Your task to perform on an android device: Open Google Maps Image 0: 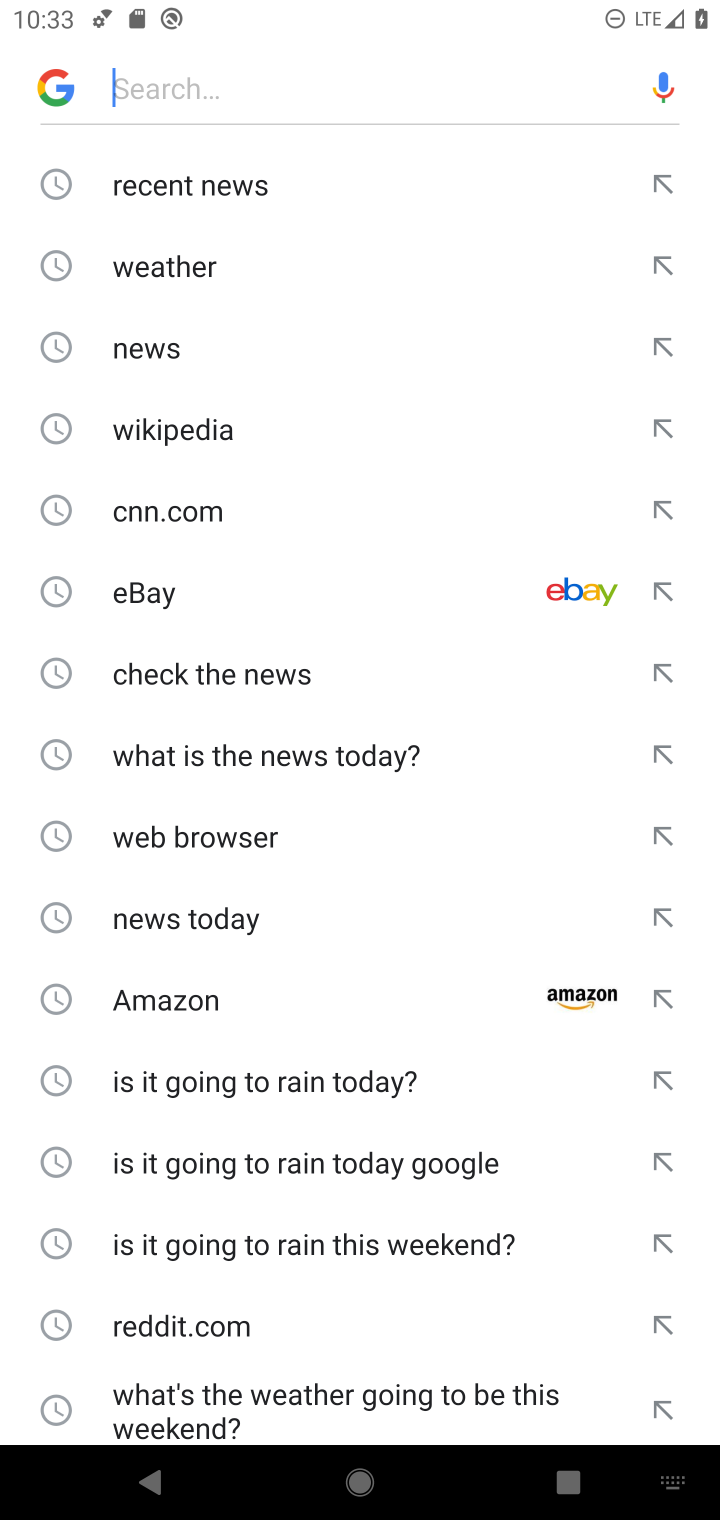
Step 0: press home button
Your task to perform on an android device: Open Google Maps Image 1: 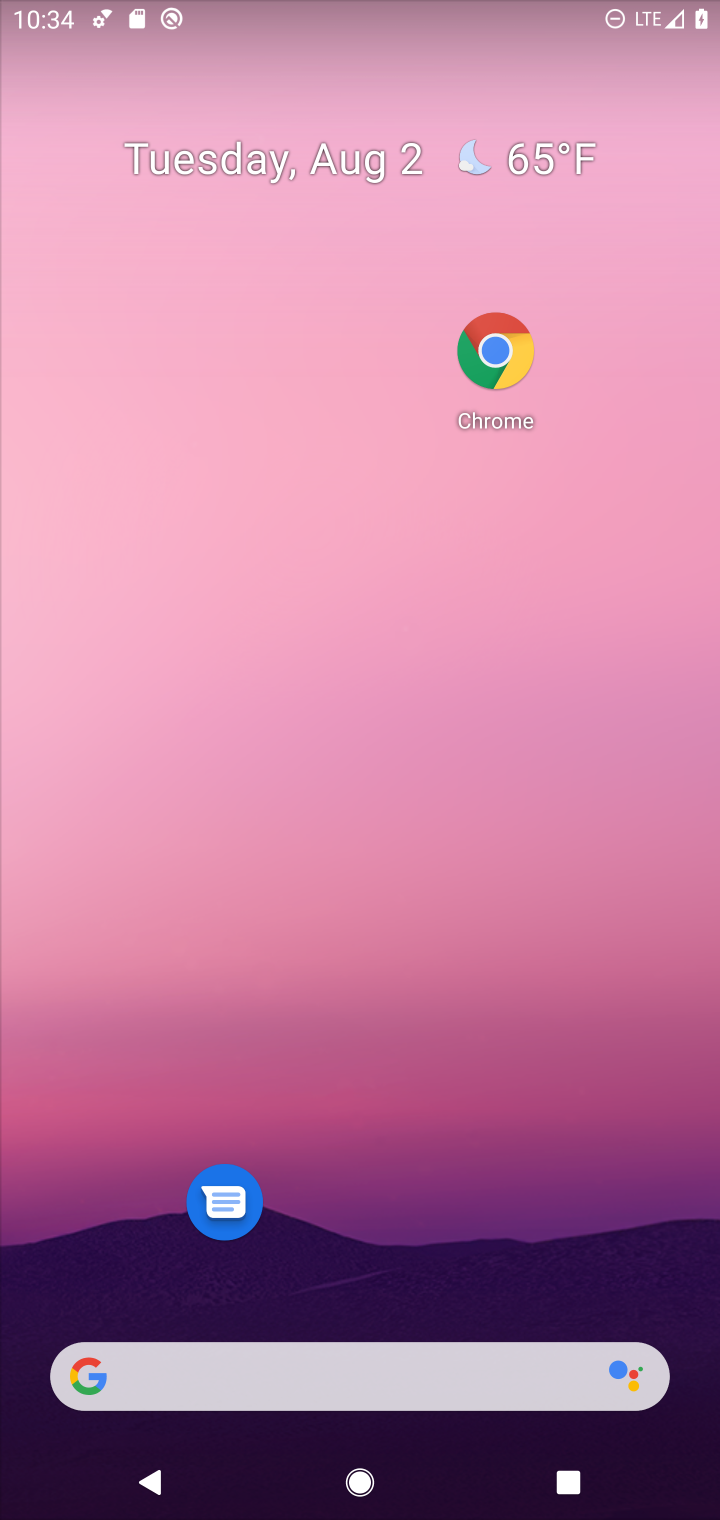
Step 1: drag from (374, 870) to (339, 102)
Your task to perform on an android device: Open Google Maps Image 2: 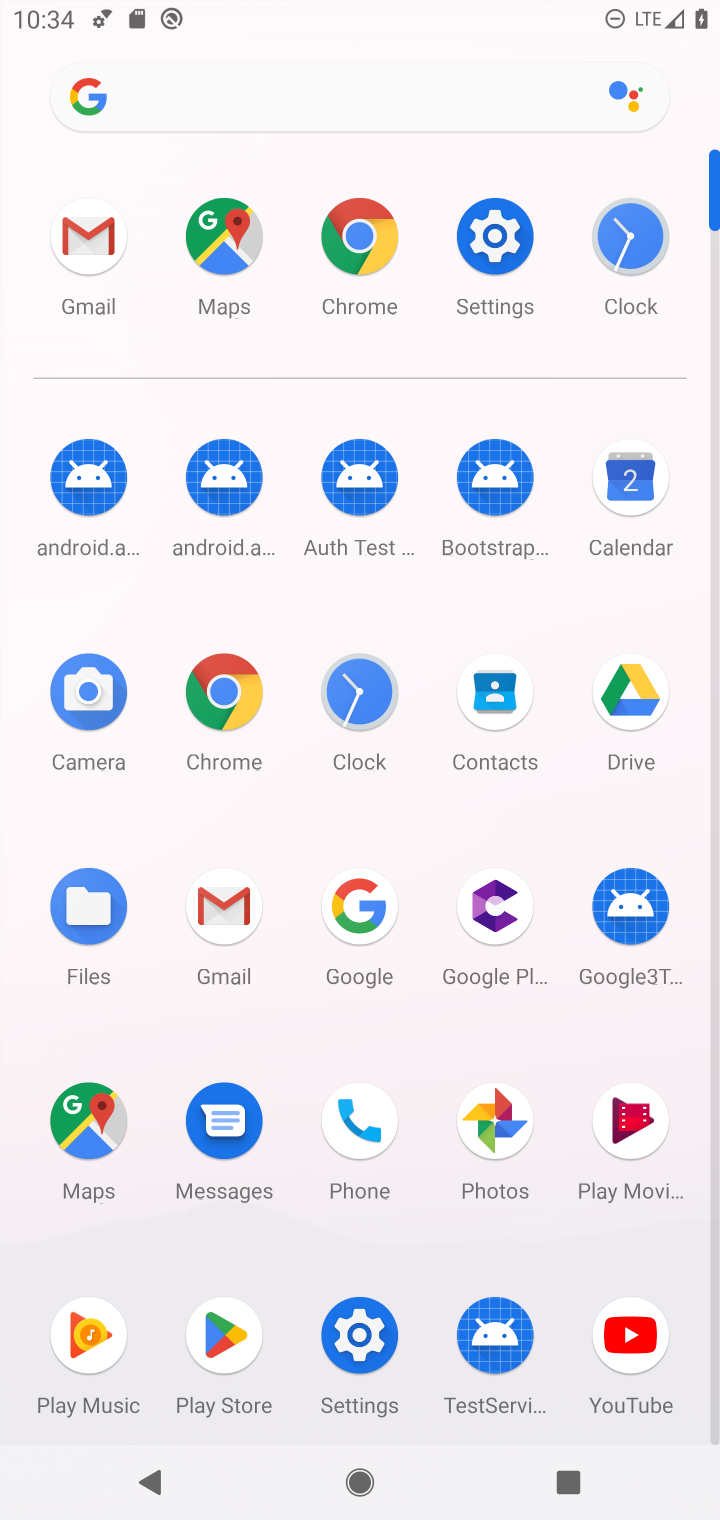
Step 2: click (76, 1136)
Your task to perform on an android device: Open Google Maps Image 3: 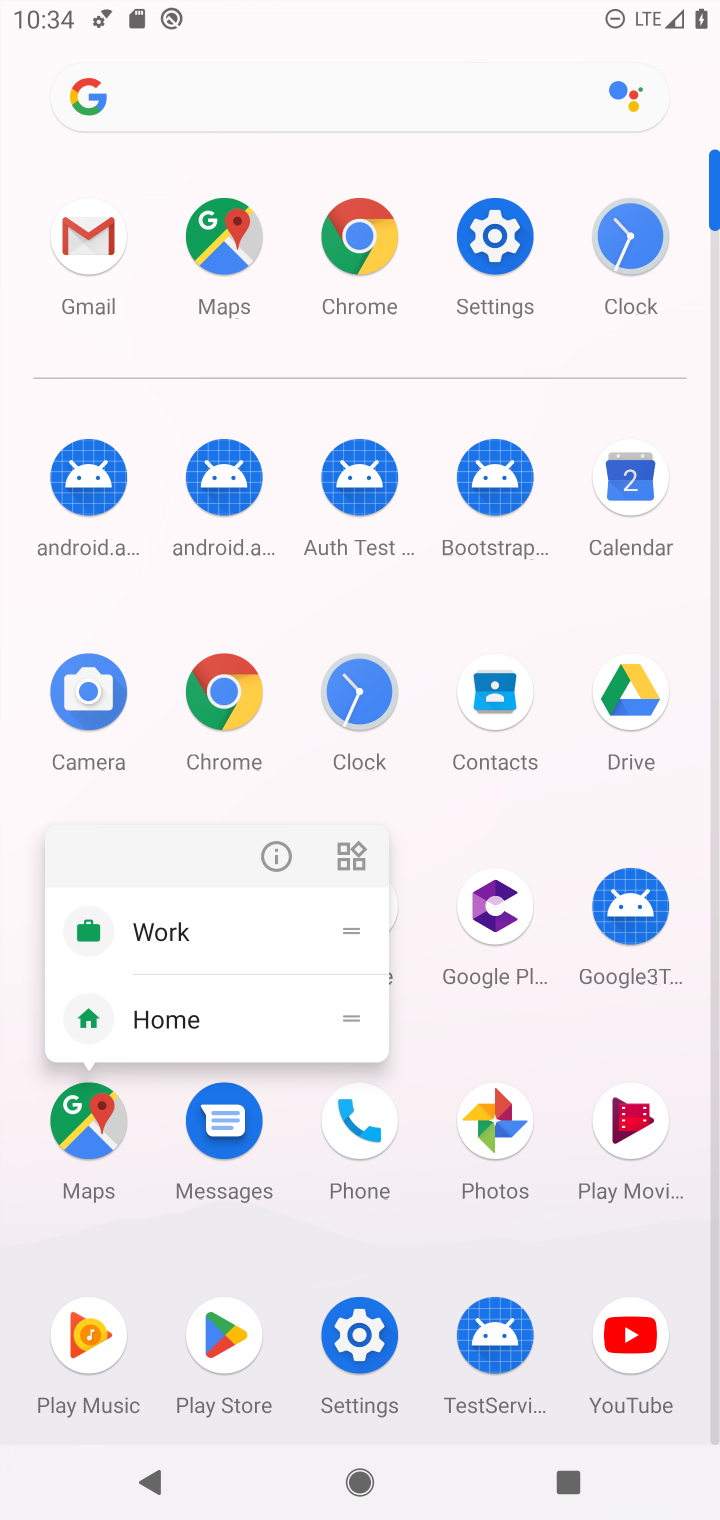
Step 3: click (89, 1122)
Your task to perform on an android device: Open Google Maps Image 4: 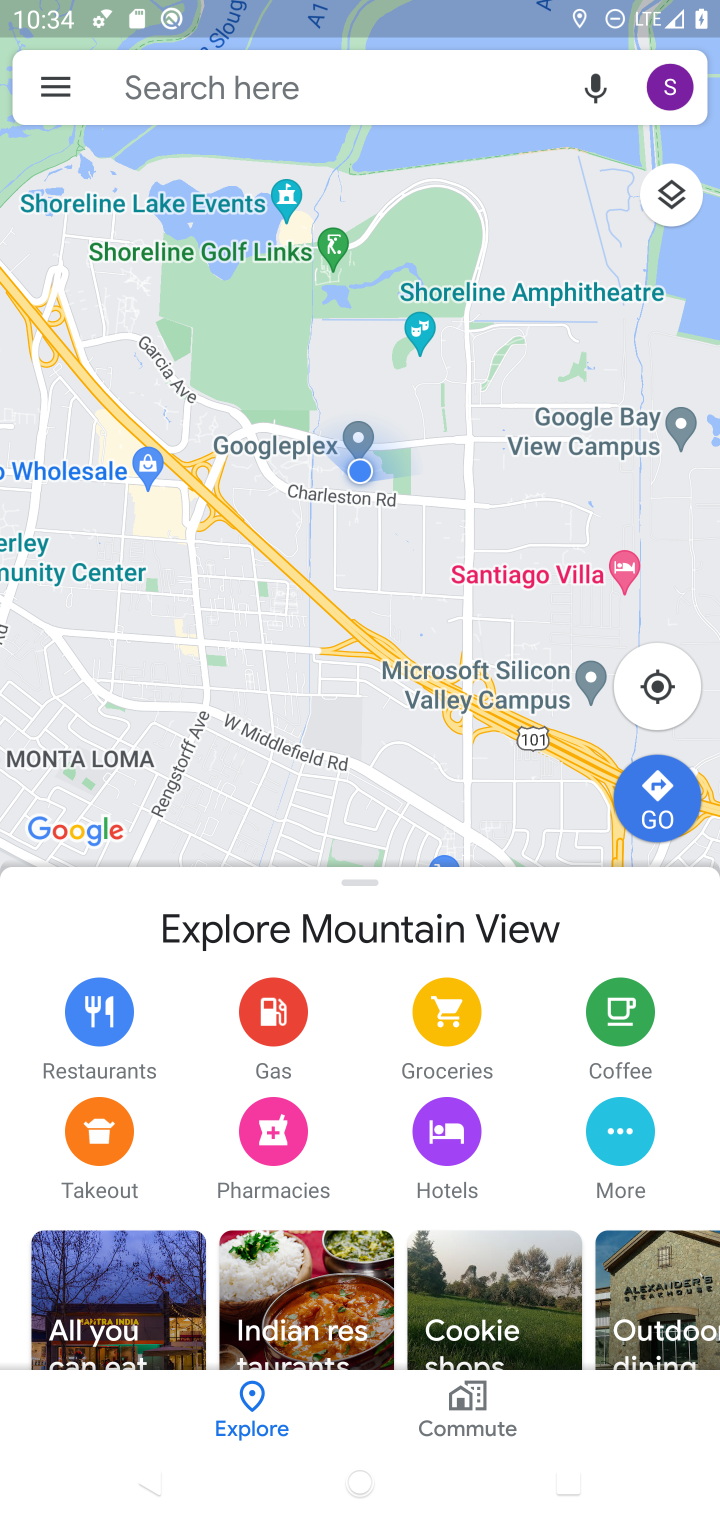
Step 4: task complete